Your task to perform on an android device: turn on the 24-hour format for clock Image 0: 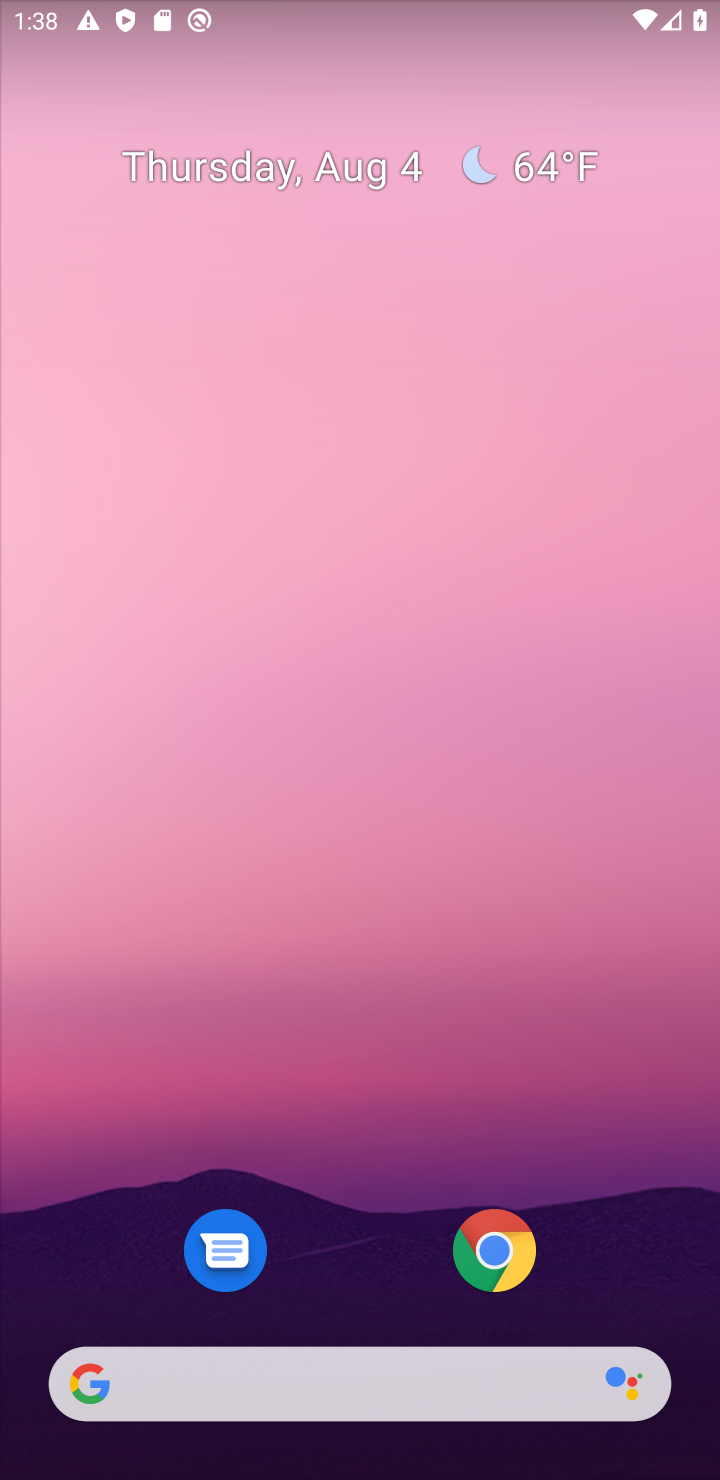
Step 0: drag from (332, 1116) to (175, 312)
Your task to perform on an android device: turn on the 24-hour format for clock Image 1: 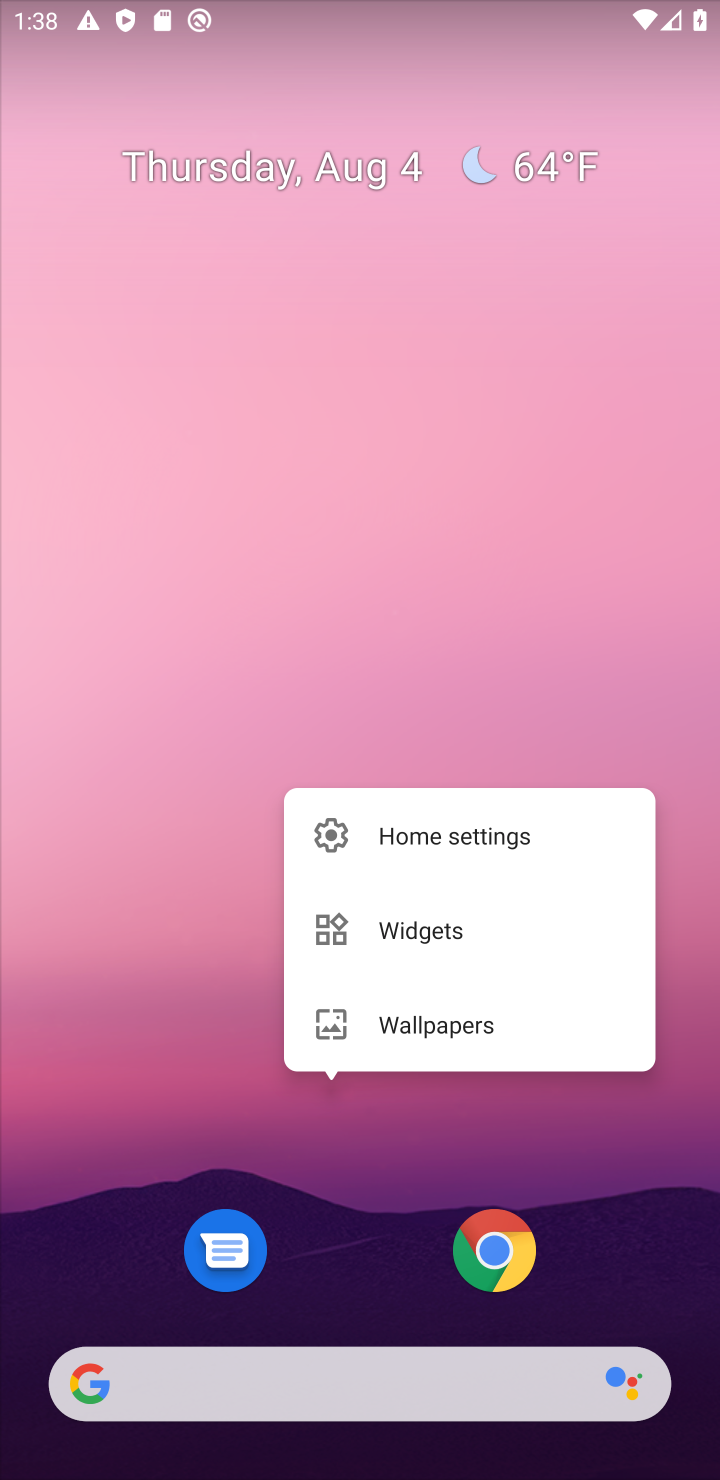
Step 1: click (328, 1138)
Your task to perform on an android device: turn on the 24-hour format for clock Image 2: 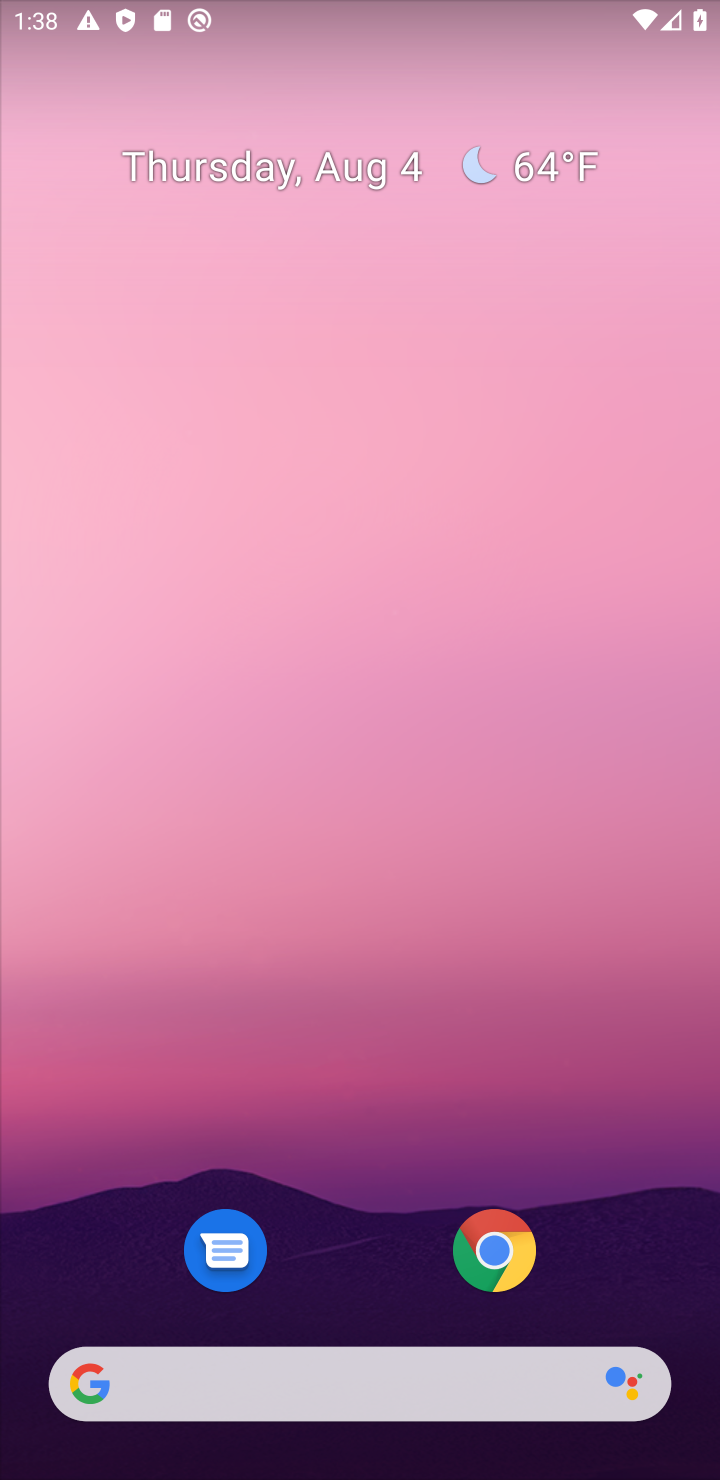
Step 2: drag from (345, 1162) to (298, 220)
Your task to perform on an android device: turn on the 24-hour format for clock Image 3: 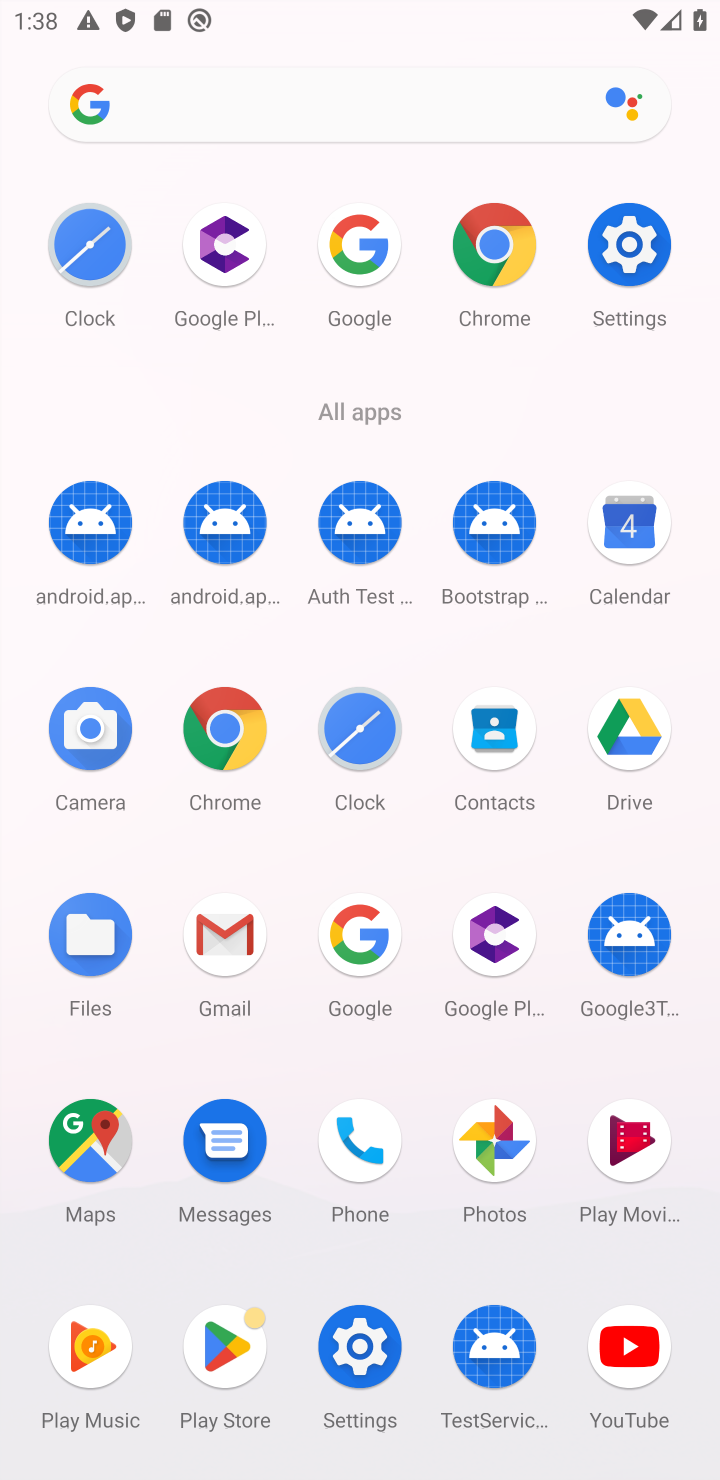
Step 3: click (365, 746)
Your task to perform on an android device: turn on the 24-hour format for clock Image 4: 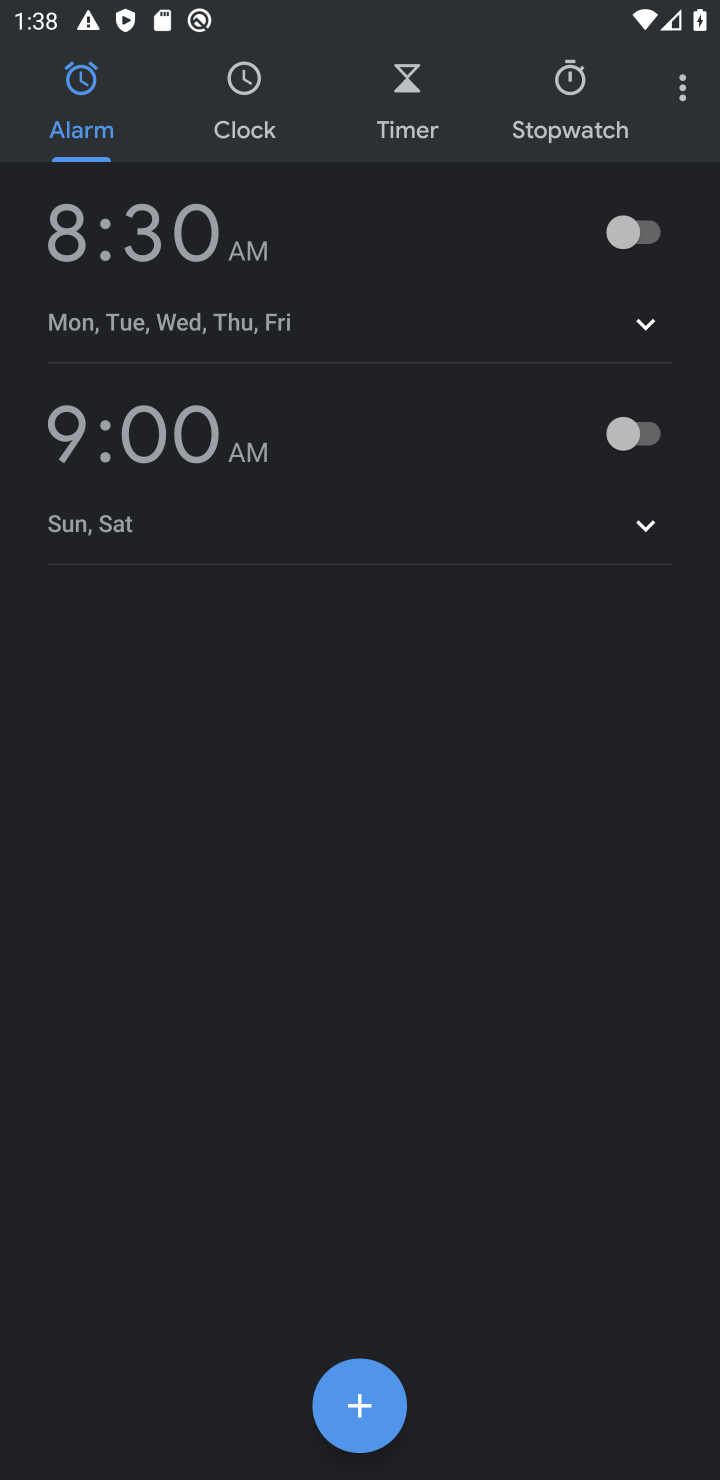
Step 4: click (676, 89)
Your task to perform on an android device: turn on the 24-hour format for clock Image 5: 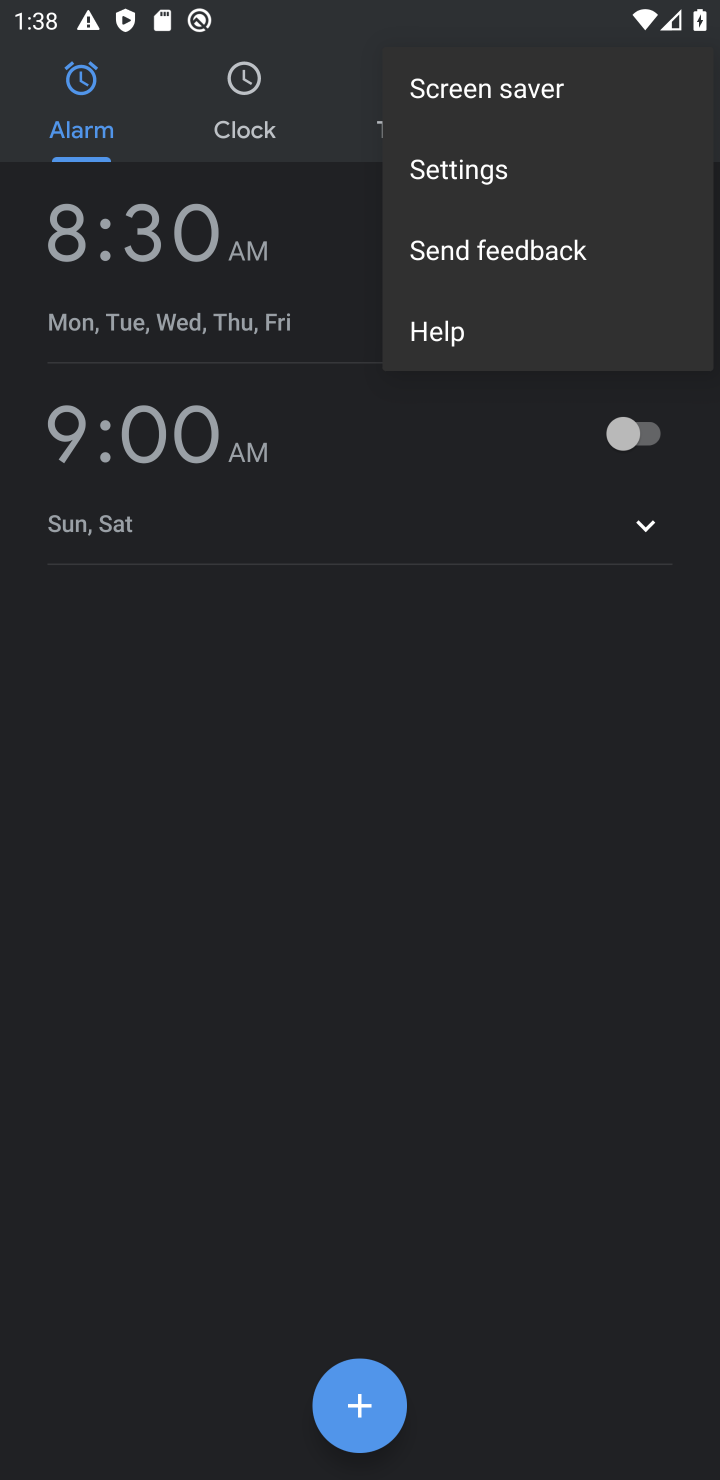
Step 5: click (510, 170)
Your task to perform on an android device: turn on the 24-hour format for clock Image 6: 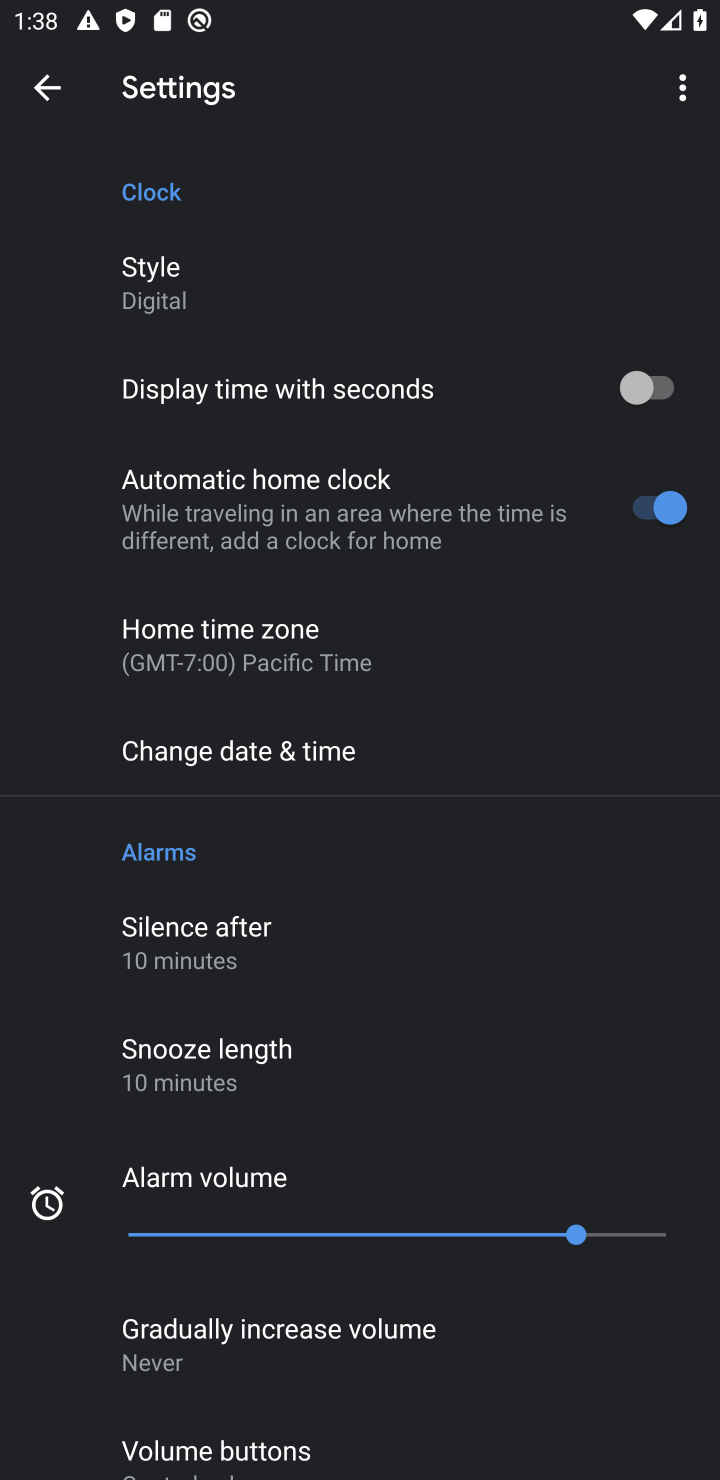
Step 6: click (265, 777)
Your task to perform on an android device: turn on the 24-hour format for clock Image 7: 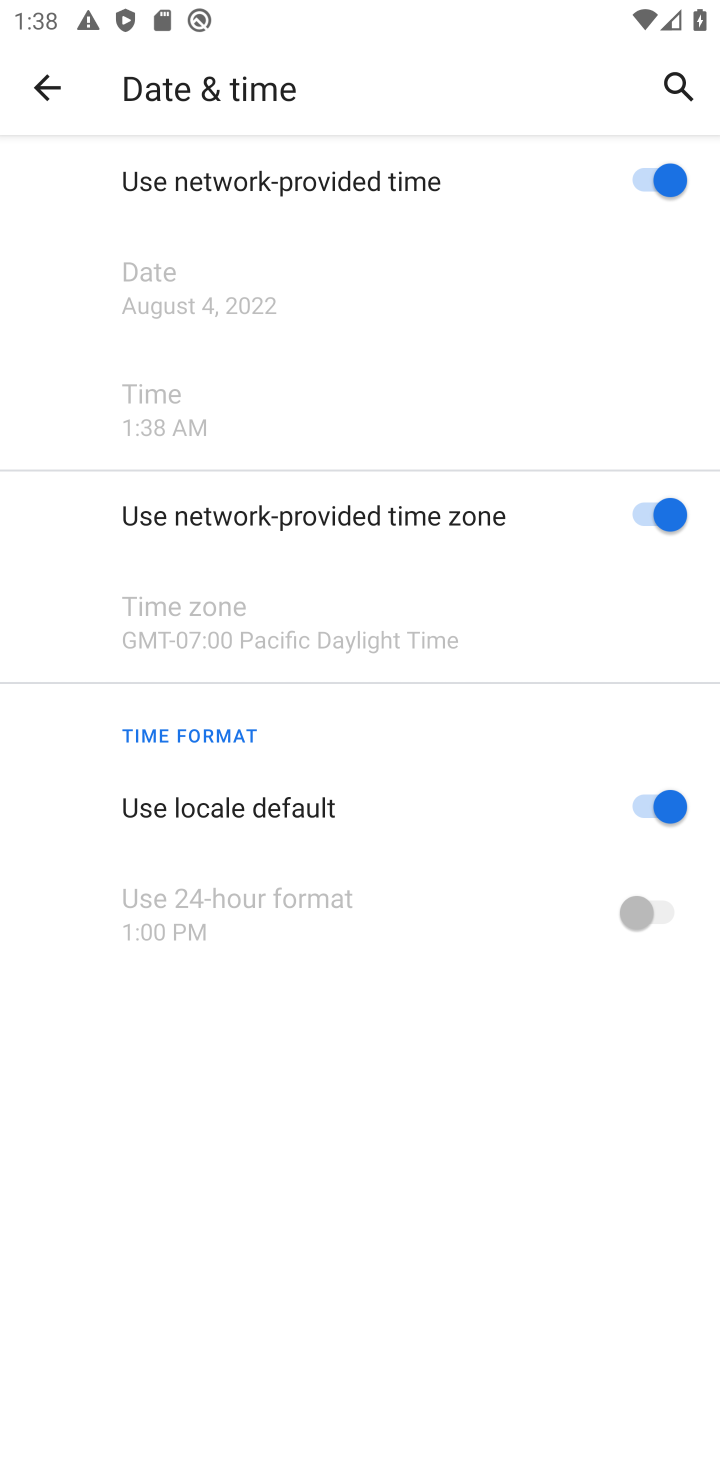
Step 7: click (624, 797)
Your task to perform on an android device: turn on the 24-hour format for clock Image 8: 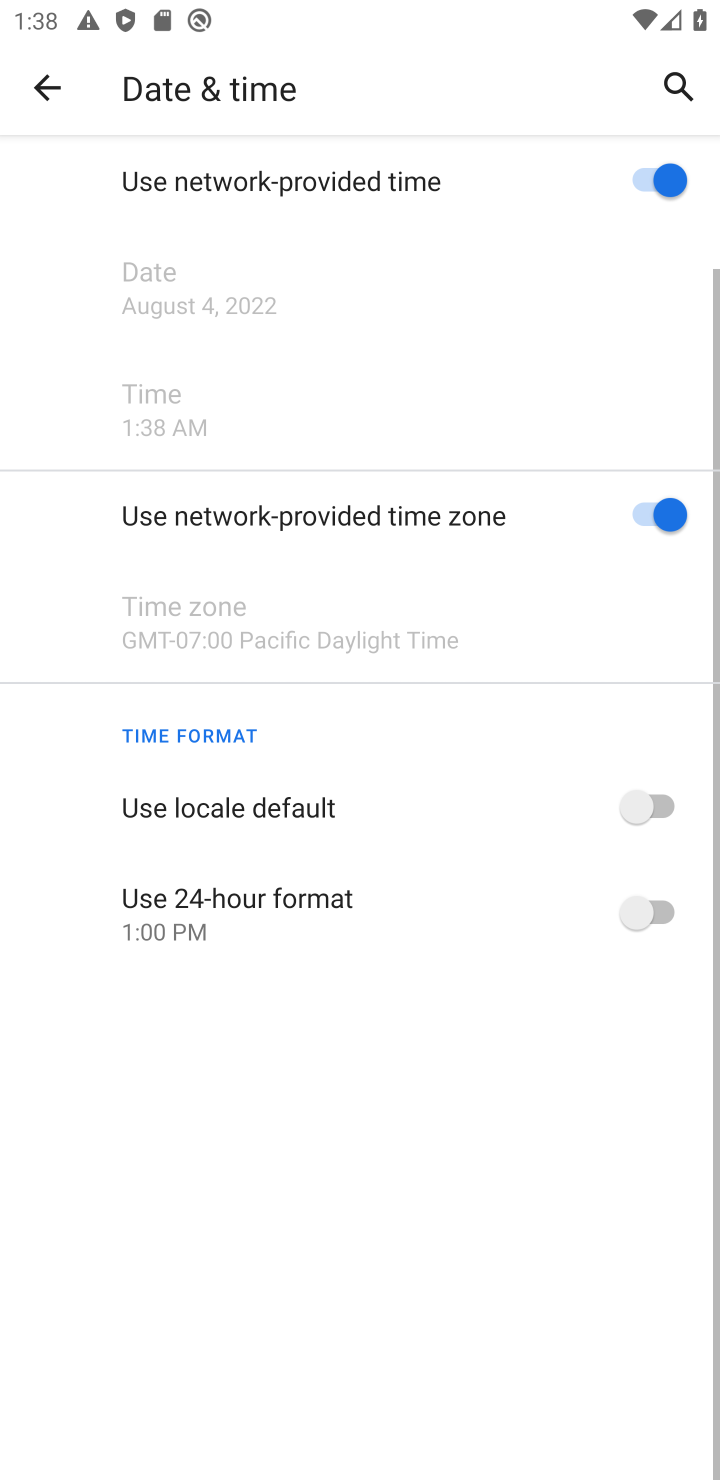
Step 8: click (644, 902)
Your task to perform on an android device: turn on the 24-hour format for clock Image 9: 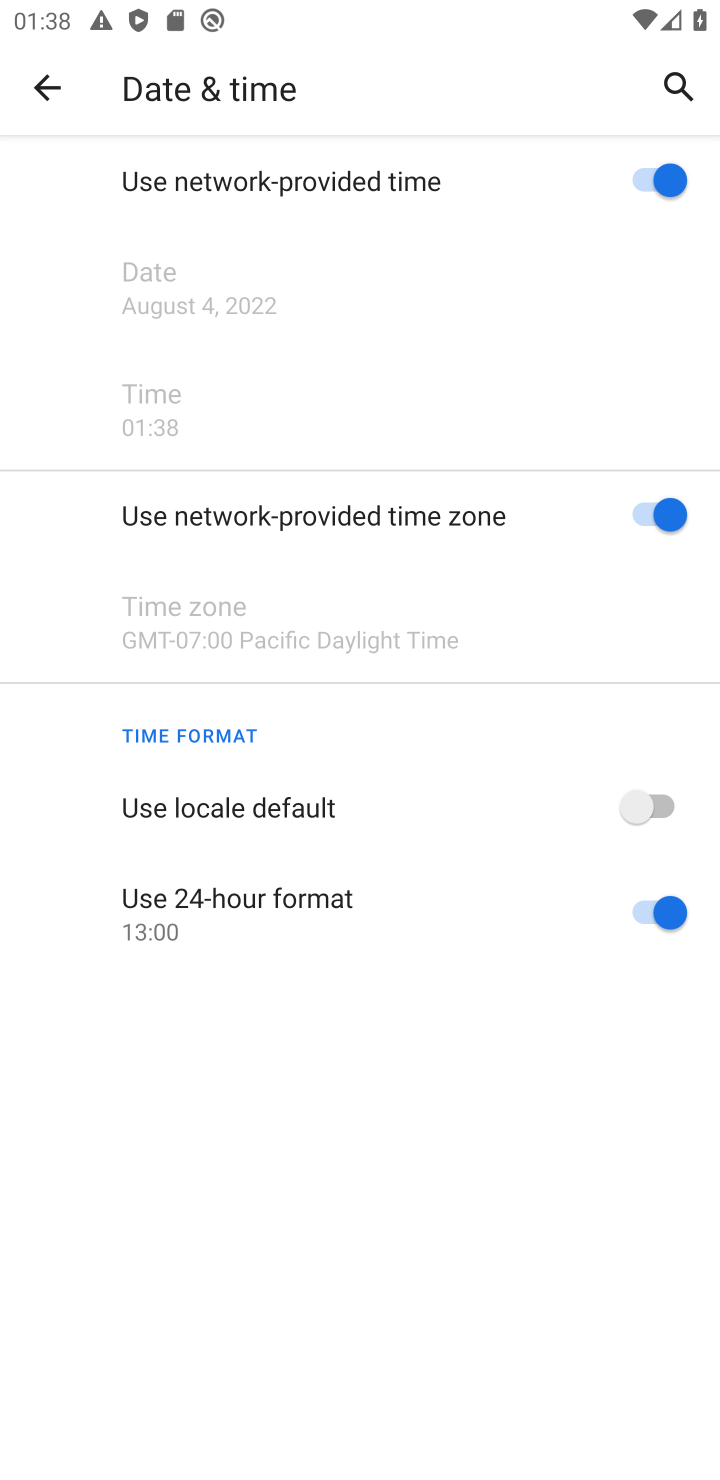
Step 9: task complete